Your task to perform on an android device: Go to Google Image 0: 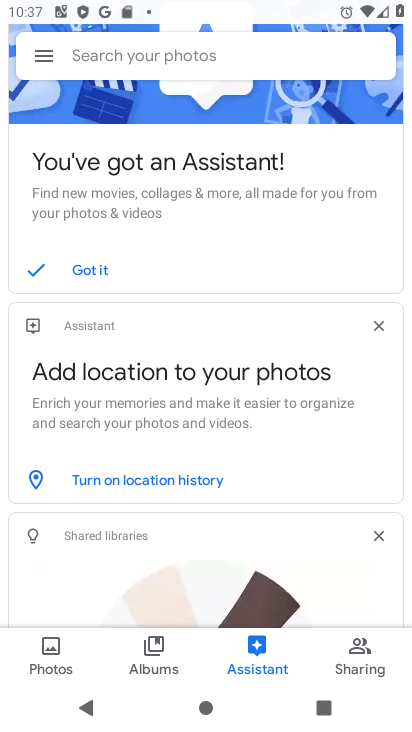
Step 0: press home button
Your task to perform on an android device: Go to Google Image 1: 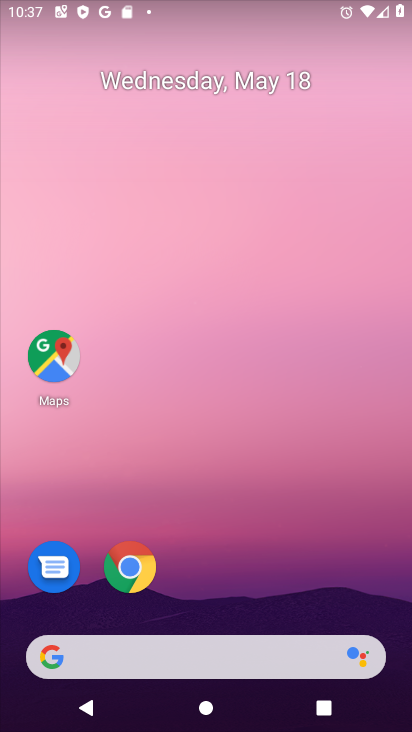
Step 1: drag from (228, 650) to (268, 132)
Your task to perform on an android device: Go to Google Image 2: 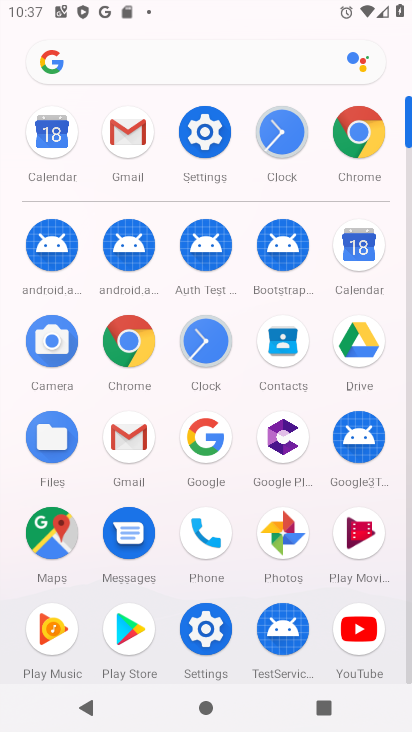
Step 2: click (198, 461)
Your task to perform on an android device: Go to Google Image 3: 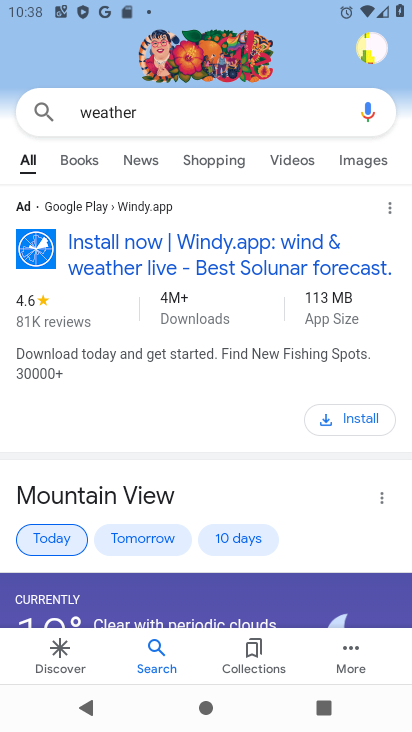
Step 3: task complete